Your task to perform on an android device: Check the weather Image 0: 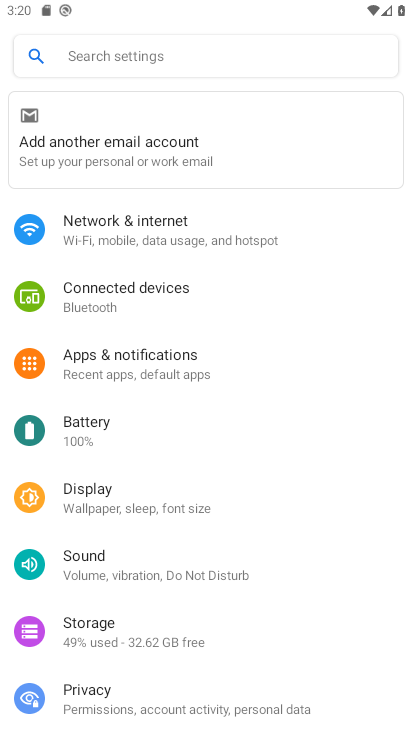
Step 0: drag from (168, 566) to (252, 204)
Your task to perform on an android device: Check the weather Image 1: 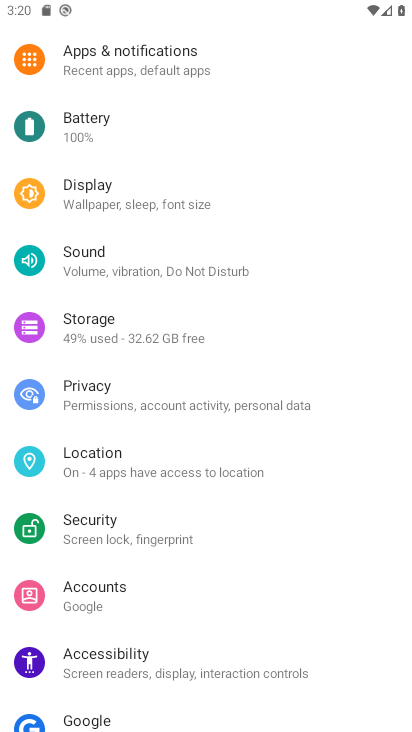
Step 1: drag from (189, 489) to (402, 652)
Your task to perform on an android device: Check the weather Image 2: 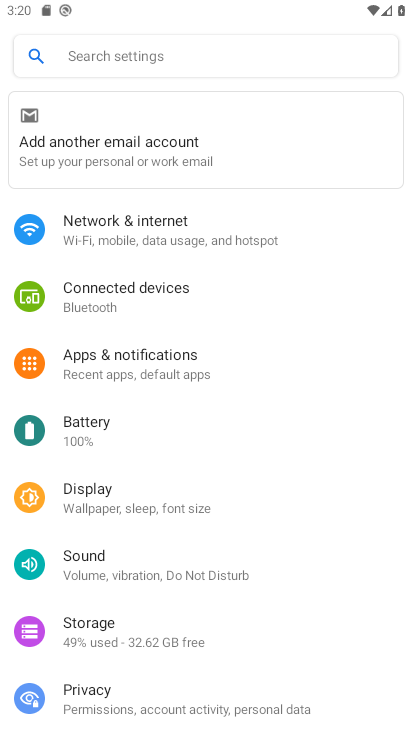
Step 2: press home button
Your task to perform on an android device: Check the weather Image 3: 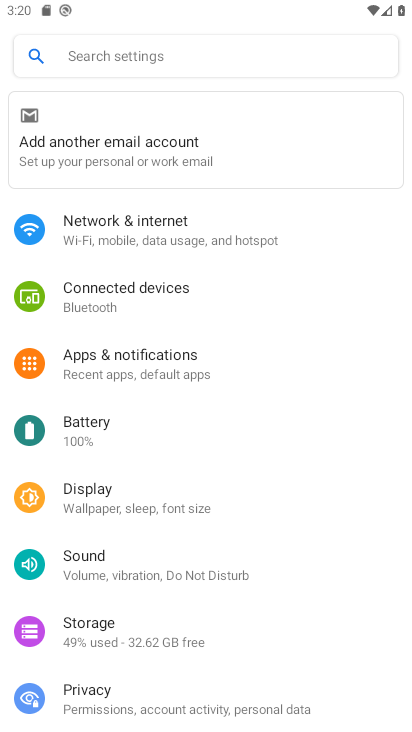
Step 3: click (392, 269)
Your task to perform on an android device: Check the weather Image 4: 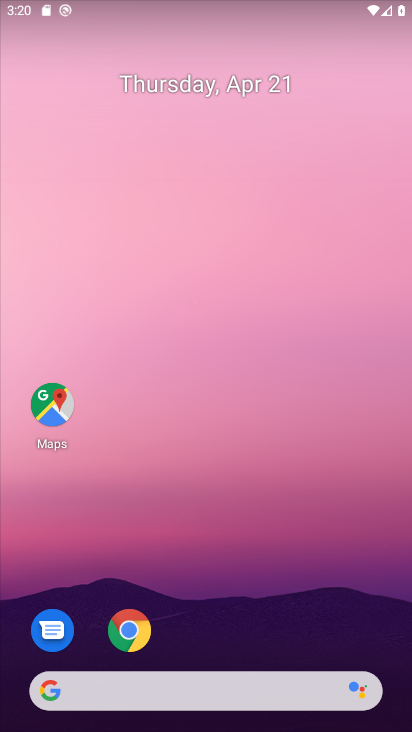
Step 4: click (131, 619)
Your task to perform on an android device: Check the weather Image 5: 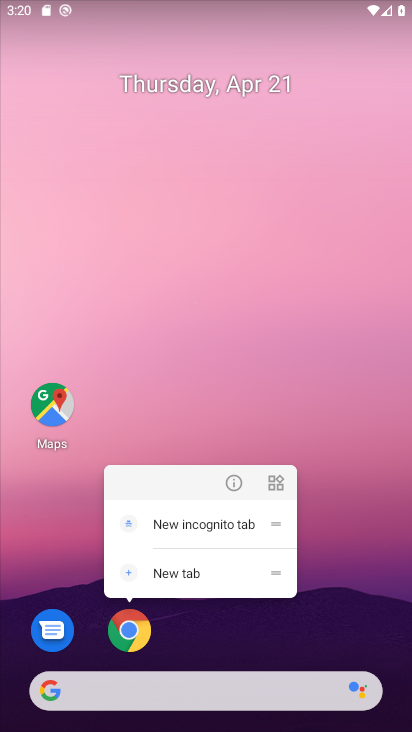
Step 5: click (222, 486)
Your task to perform on an android device: Check the weather Image 6: 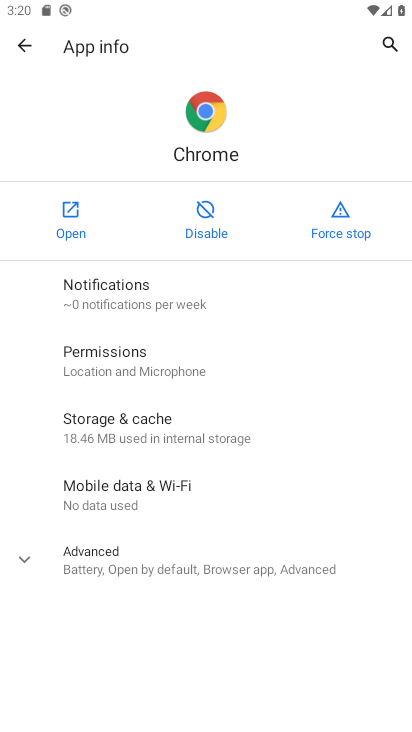
Step 6: click (56, 214)
Your task to perform on an android device: Check the weather Image 7: 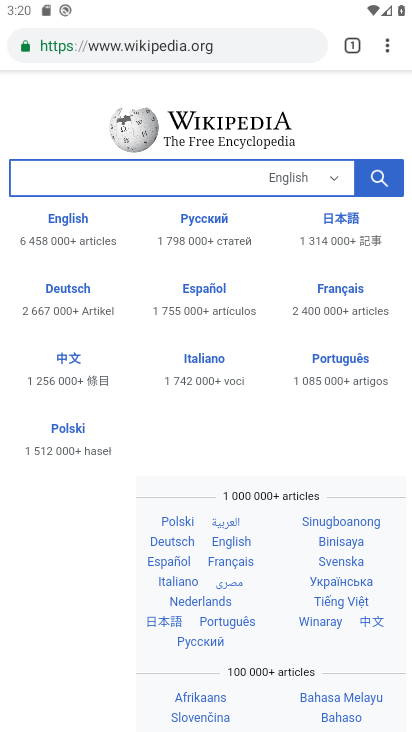
Step 7: click (71, 185)
Your task to perform on an android device: Check the weather Image 8: 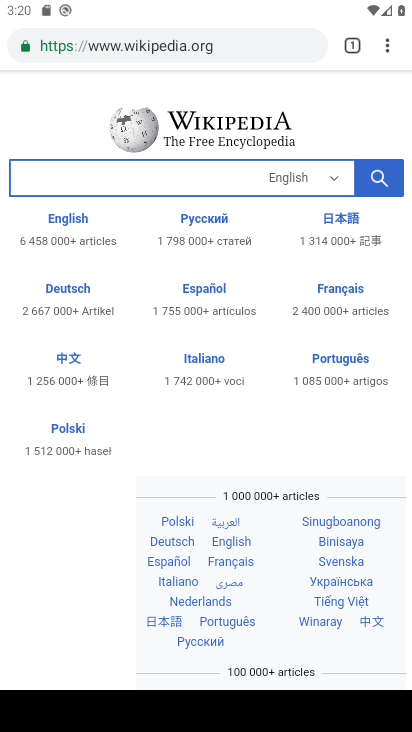
Step 8: click (222, 57)
Your task to perform on an android device: Check the weather Image 9: 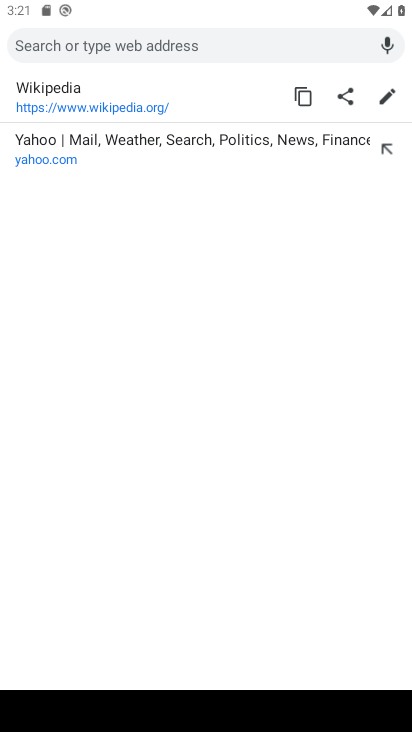
Step 9: type "weather"
Your task to perform on an android device: Check the weather Image 10: 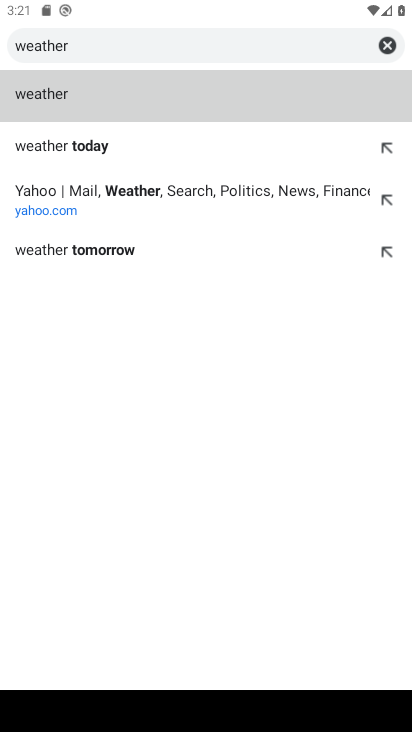
Step 10: click (55, 110)
Your task to perform on an android device: Check the weather Image 11: 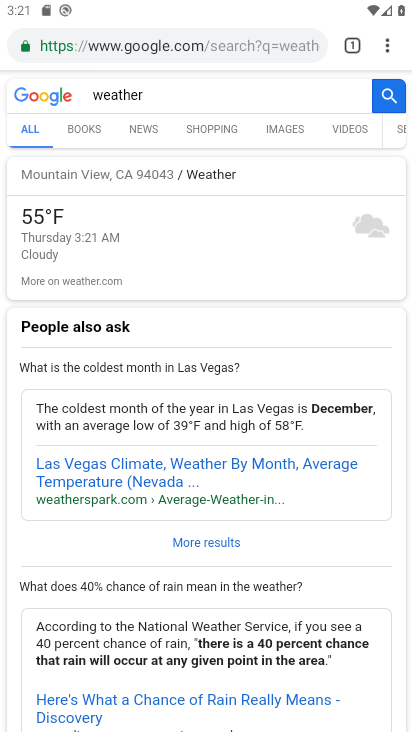
Step 11: task complete